Your task to perform on an android device: Go to display settings Image 0: 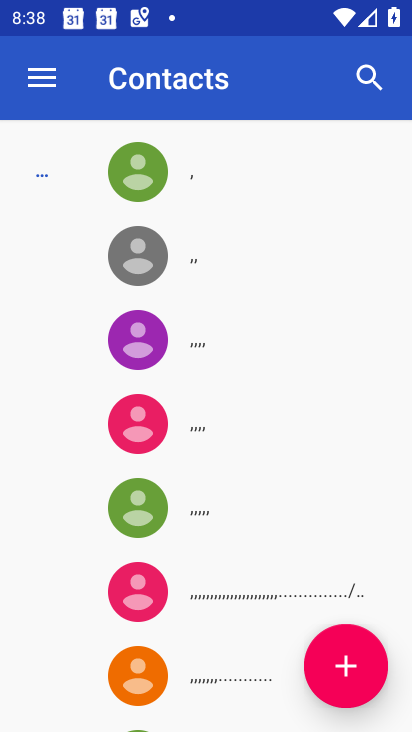
Step 0: press home button
Your task to perform on an android device: Go to display settings Image 1: 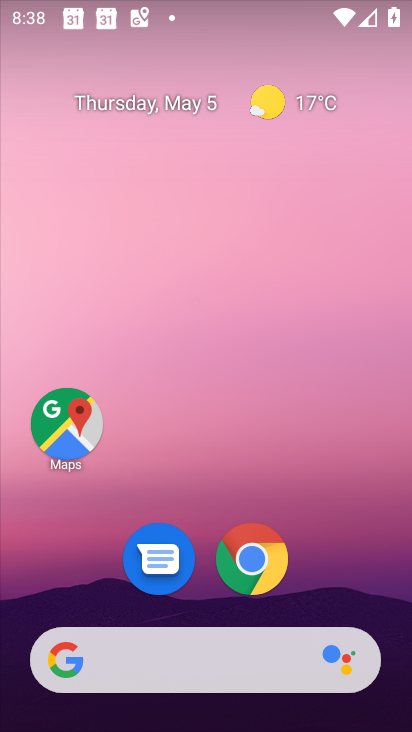
Step 1: drag from (347, 602) to (344, 8)
Your task to perform on an android device: Go to display settings Image 2: 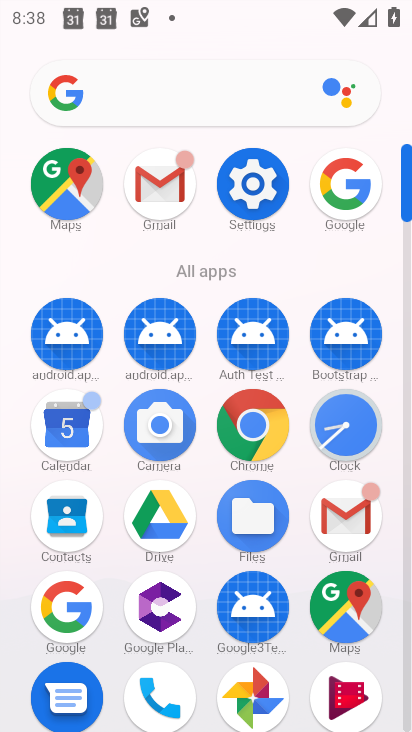
Step 2: click (251, 185)
Your task to perform on an android device: Go to display settings Image 3: 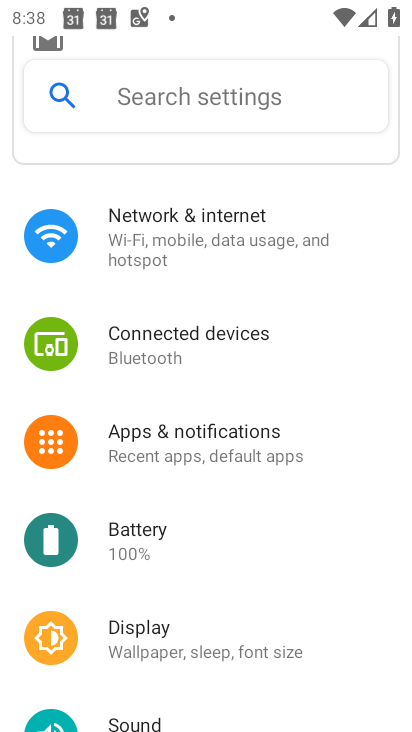
Step 3: click (149, 641)
Your task to perform on an android device: Go to display settings Image 4: 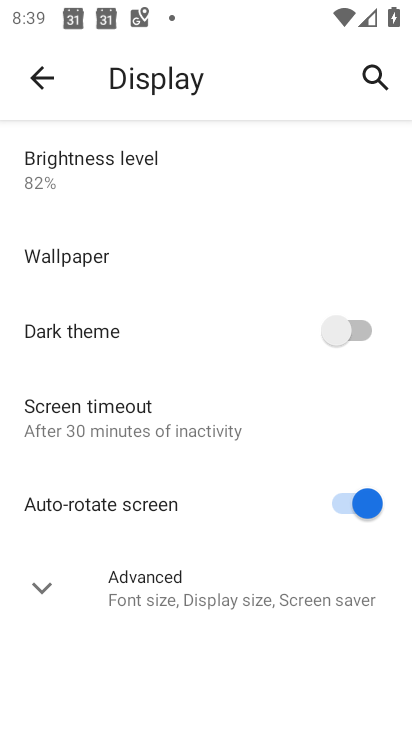
Step 4: task complete